Your task to perform on an android device: Open Chrome and go to settings Image 0: 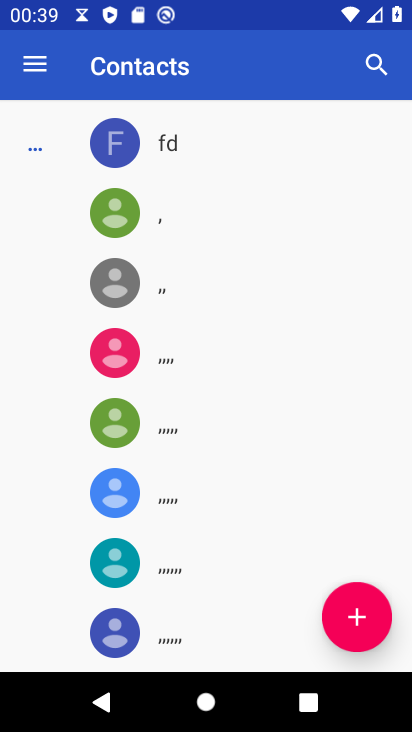
Step 0: press home button
Your task to perform on an android device: Open Chrome and go to settings Image 1: 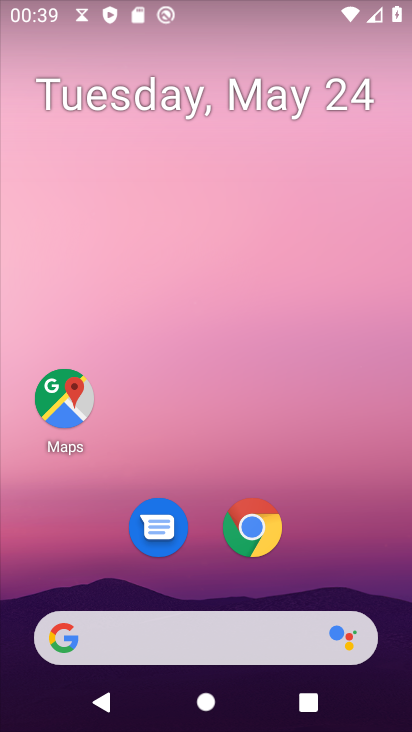
Step 1: click (259, 537)
Your task to perform on an android device: Open Chrome and go to settings Image 2: 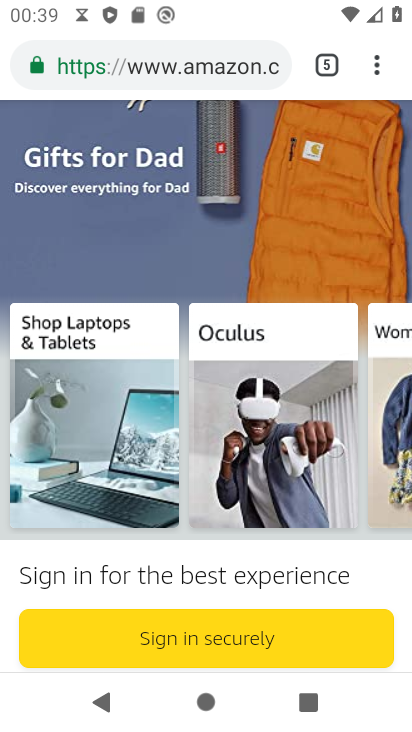
Step 2: task complete